Your task to perform on an android device: star an email in the gmail app Image 0: 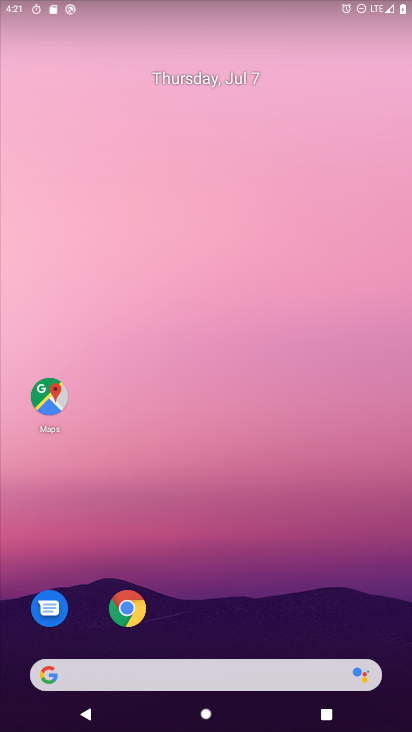
Step 0: drag from (233, 665) to (198, 123)
Your task to perform on an android device: star an email in the gmail app Image 1: 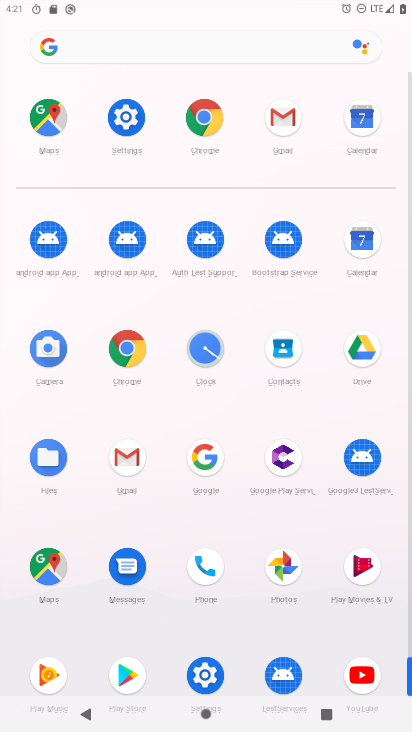
Step 1: click (280, 118)
Your task to perform on an android device: star an email in the gmail app Image 2: 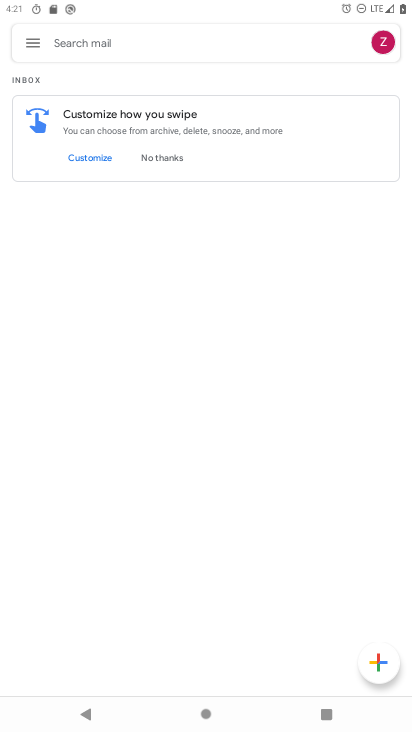
Step 2: task complete